Your task to perform on an android device: turn on showing notifications on the lock screen Image 0: 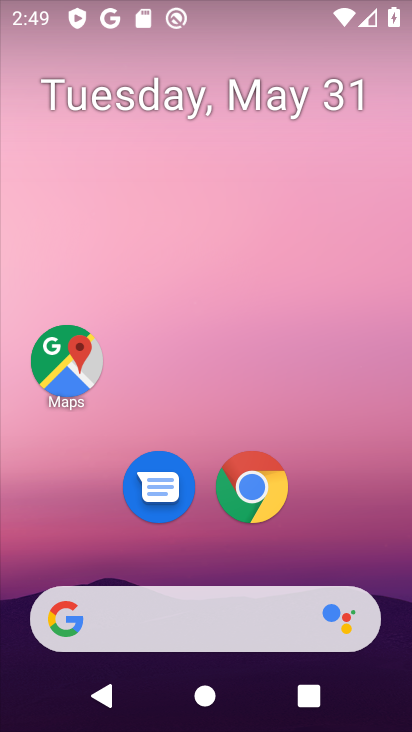
Step 0: drag from (50, 576) to (194, 90)
Your task to perform on an android device: turn on showing notifications on the lock screen Image 1: 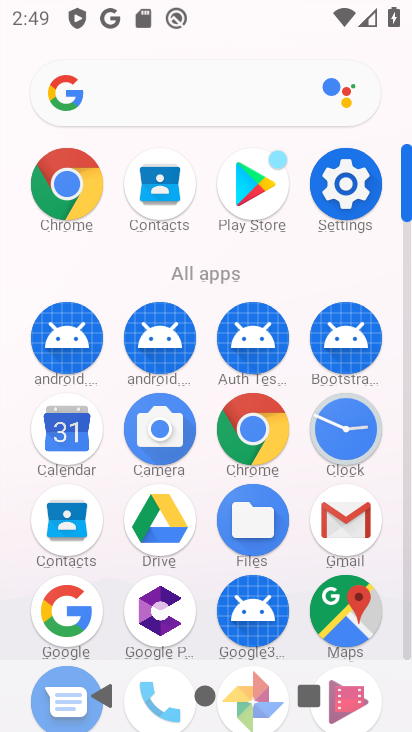
Step 1: drag from (123, 513) to (191, 270)
Your task to perform on an android device: turn on showing notifications on the lock screen Image 2: 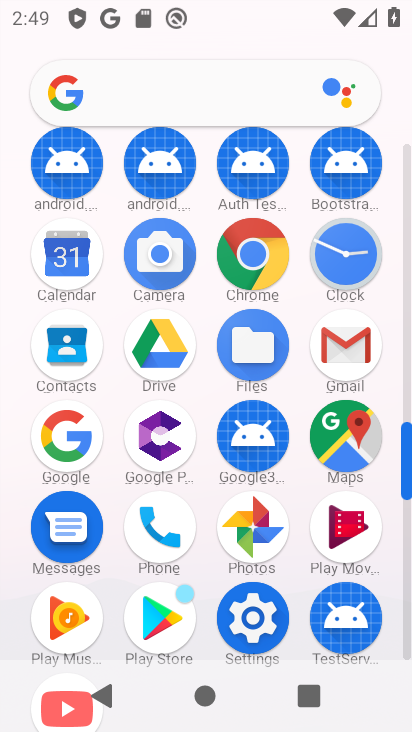
Step 2: click (252, 598)
Your task to perform on an android device: turn on showing notifications on the lock screen Image 3: 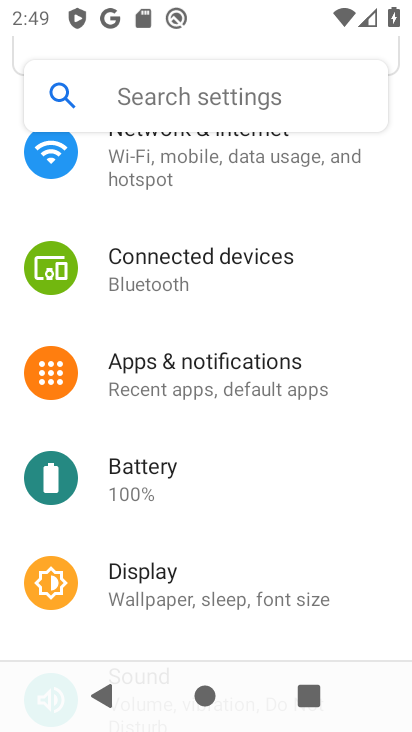
Step 3: click (268, 369)
Your task to perform on an android device: turn on showing notifications on the lock screen Image 4: 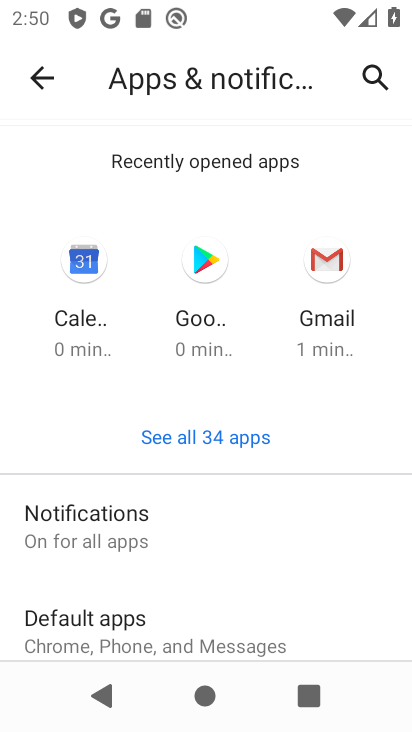
Step 4: drag from (203, 601) to (273, 354)
Your task to perform on an android device: turn on showing notifications on the lock screen Image 5: 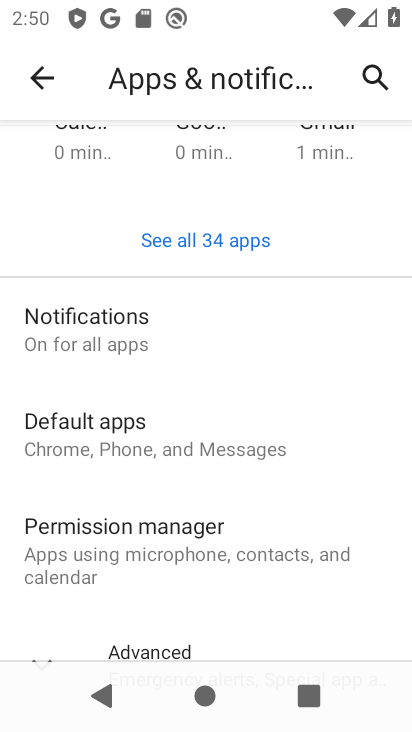
Step 5: click (182, 332)
Your task to perform on an android device: turn on showing notifications on the lock screen Image 6: 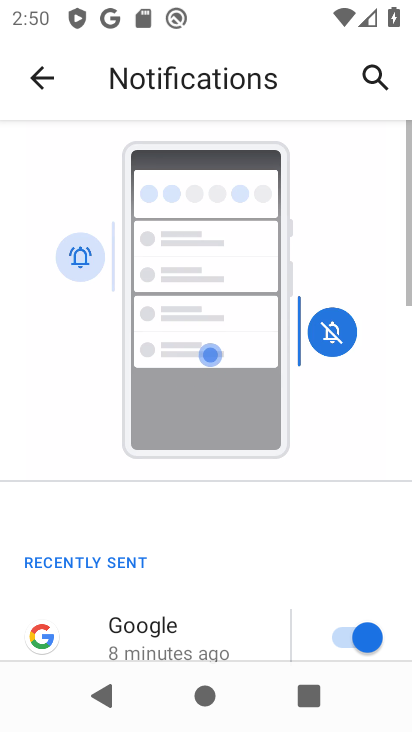
Step 6: drag from (156, 676) to (268, 210)
Your task to perform on an android device: turn on showing notifications on the lock screen Image 7: 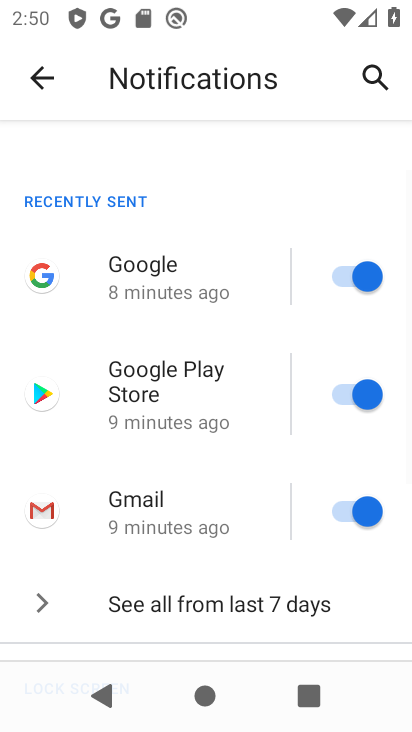
Step 7: drag from (203, 476) to (279, 201)
Your task to perform on an android device: turn on showing notifications on the lock screen Image 8: 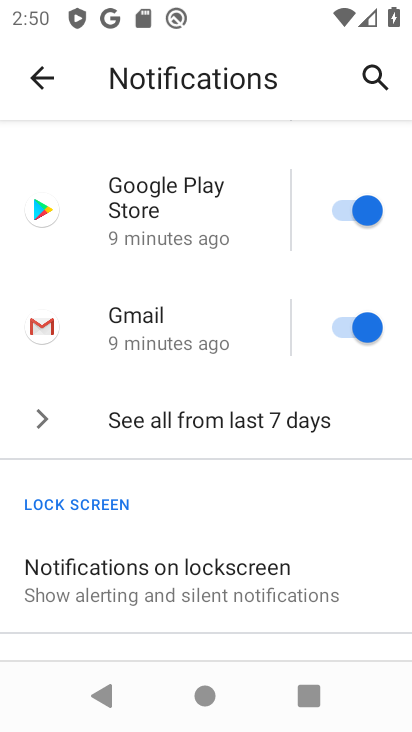
Step 8: click (226, 586)
Your task to perform on an android device: turn on showing notifications on the lock screen Image 9: 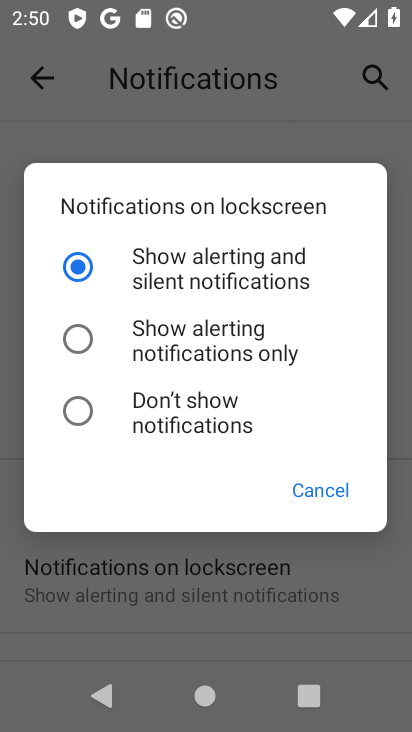
Step 9: task complete